Your task to perform on an android device: Go to Wikipedia Image 0: 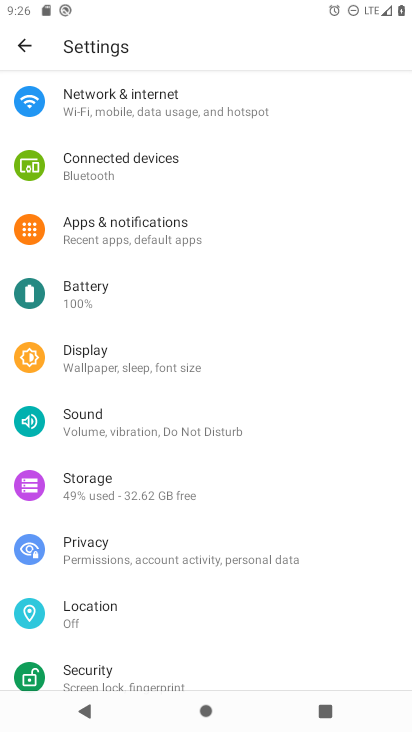
Step 0: press home button
Your task to perform on an android device: Go to Wikipedia Image 1: 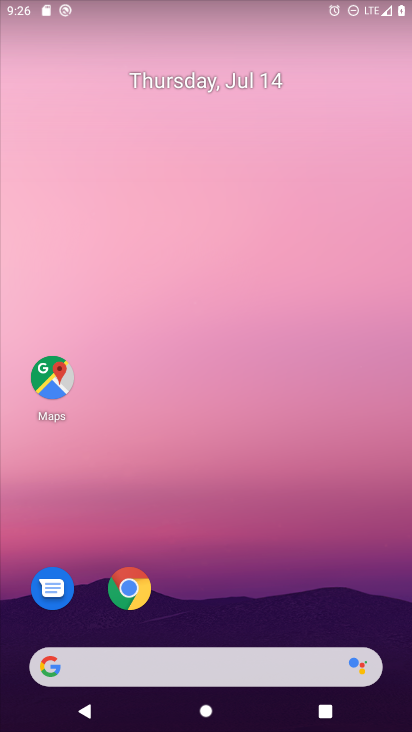
Step 1: drag from (363, 547) to (282, 231)
Your task to perform on an android device: Go to Wikipedia Image 2: 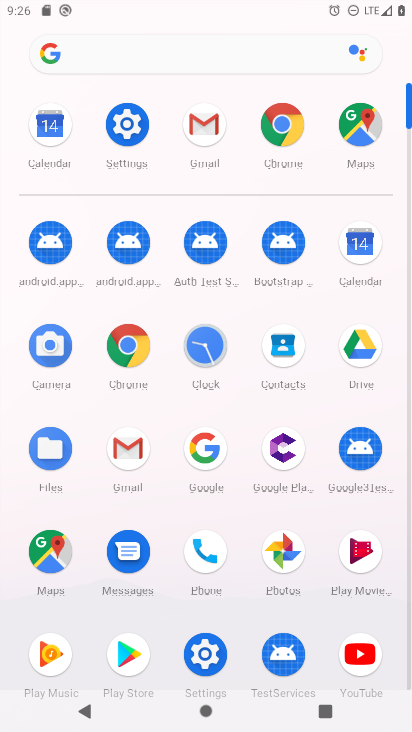
Step 2: click (275, 123)
Your task to perform on an android device: Go to Wikipedia Image 3: 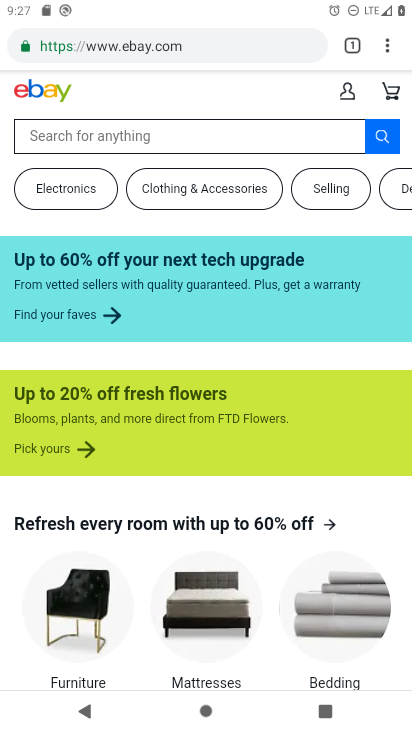
Step 3: click (204, 47)
Your task to perform on an android device: Go to Wikipedia Image 4: 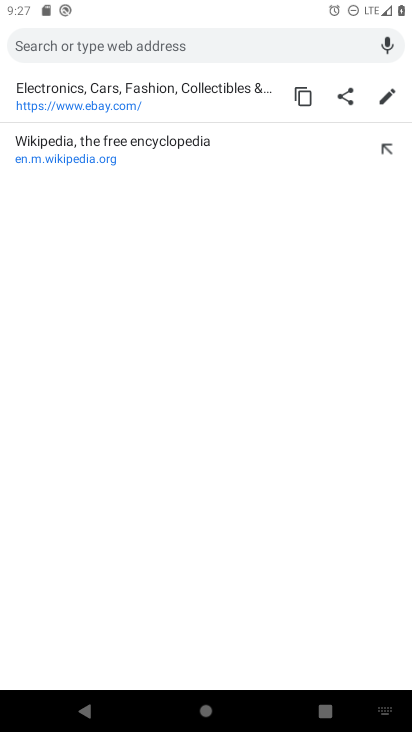
Step 4: type " Wikipedia"
Your task to perform on an android device: Go to Wikipedia Image 5: 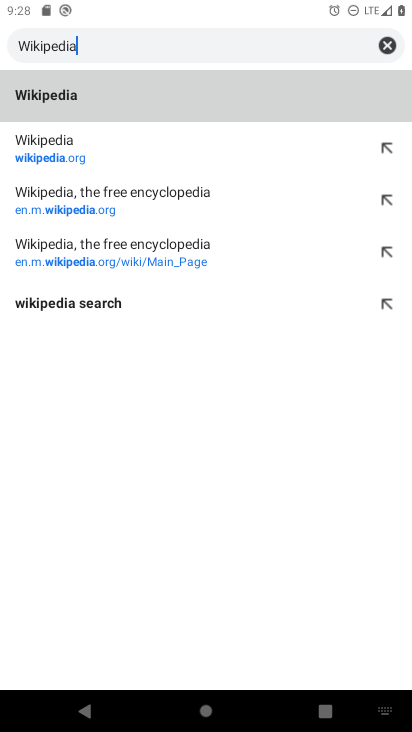
Step 5: press enter
Your task to perform on an android device: Go to Wikipedia Image 6: 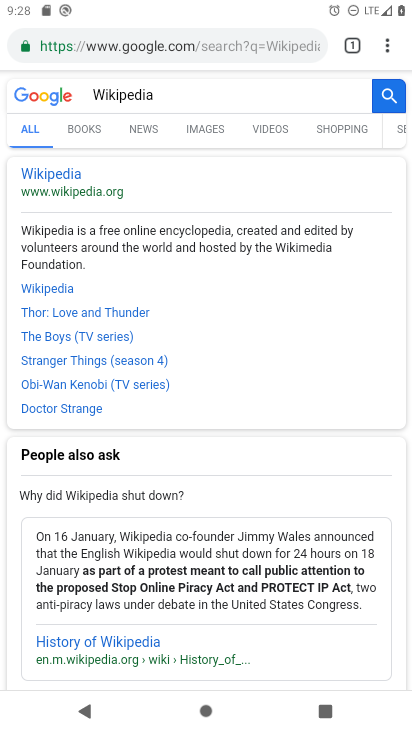
Step 6: task complete